Your task to perform on an android device: Search for seafood restaurants on Google Maps Image 0: 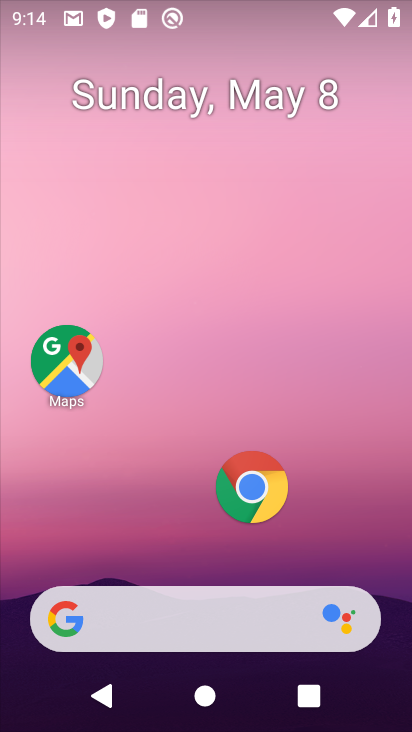
Step 0: click (54, 370)
Your task to perform on an android device: Search for seafood restaurants on Google Maps Image 1: 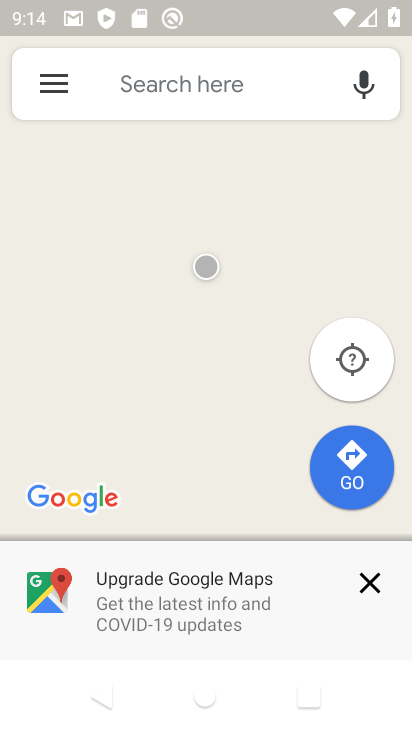
Step 1: click (196, 86)
Your task to perform on an android device: Search for seafood restaurants on Google Maps Image 2: 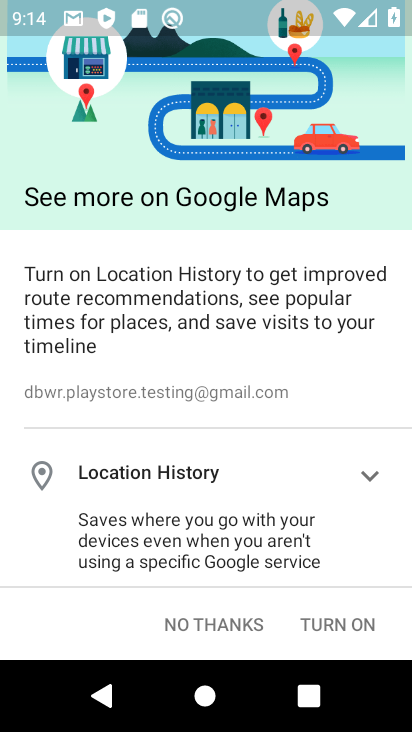
Step 2: click (255, 617)
Your task to perform on an android device: Search for seafood restaurants on Google Maps Image 3: 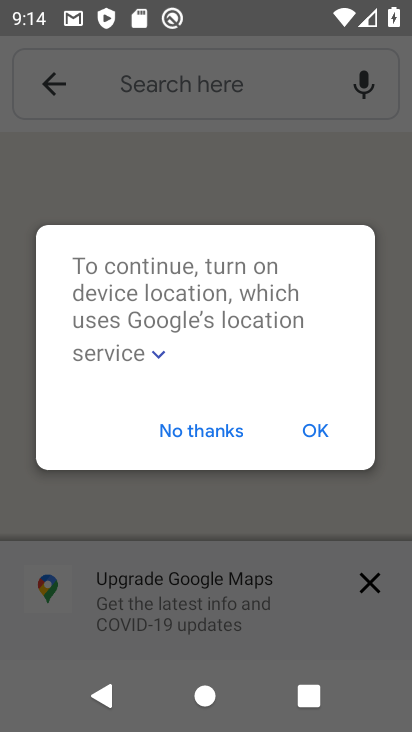
Step 3: click (325, 433)
Your task to perform on an android device: Search for seafood restaurants on Google Maps Image 4: 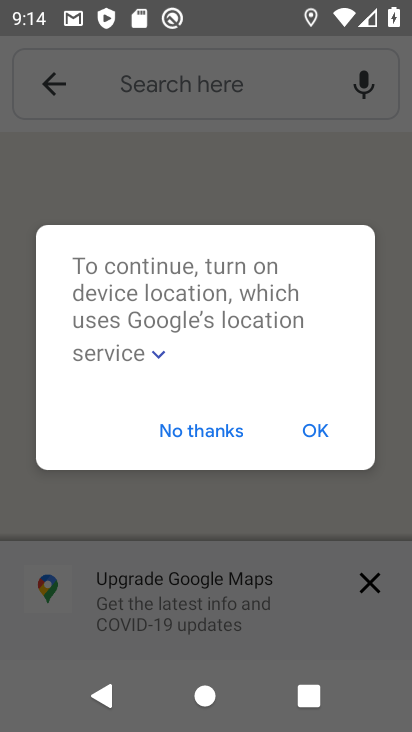
Step 4: click (315, 420)
Your task to perform on an android device: Search for seafood restaurants on Google Maps Image 5: 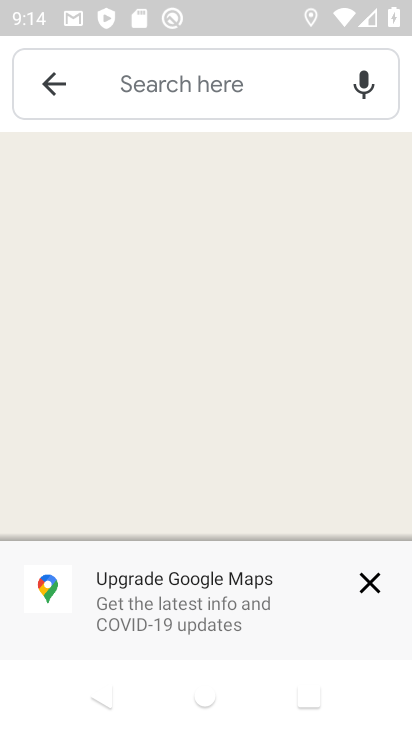
Step 5: click (53, 80)
Your task to perform on an android device: Search for seafood restaurants on Google Maps Image 6: 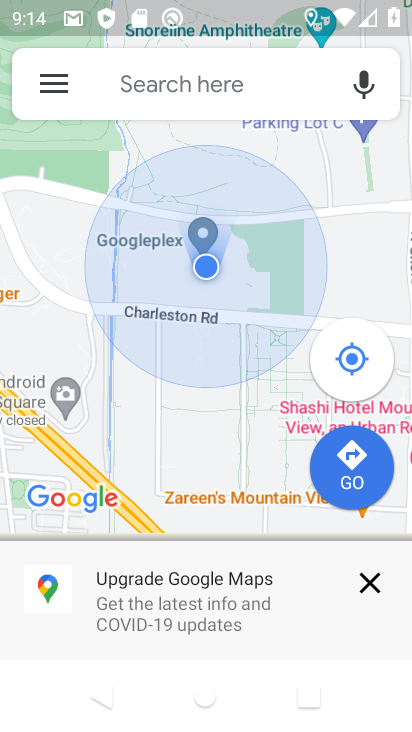
Step 6: click (124, 74)
Your task to perform on an android device: Search for seafood restaurants on Google Maps Image 7: 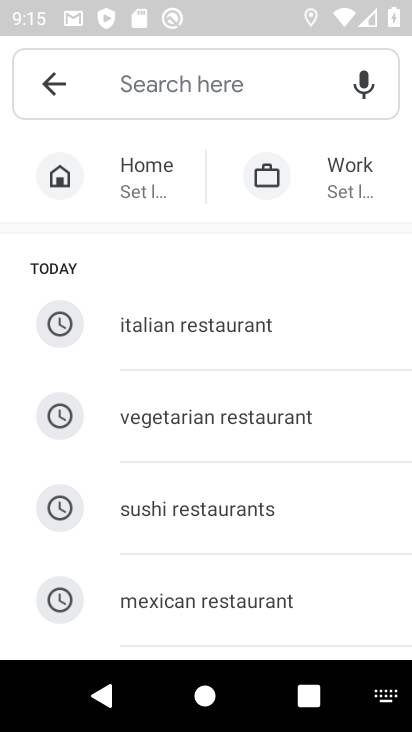
Step 7: drag from (266, 593) to (264, 424)
Your task to perform on an android device: Search for seafood restaurants on Google Maps Image 8: 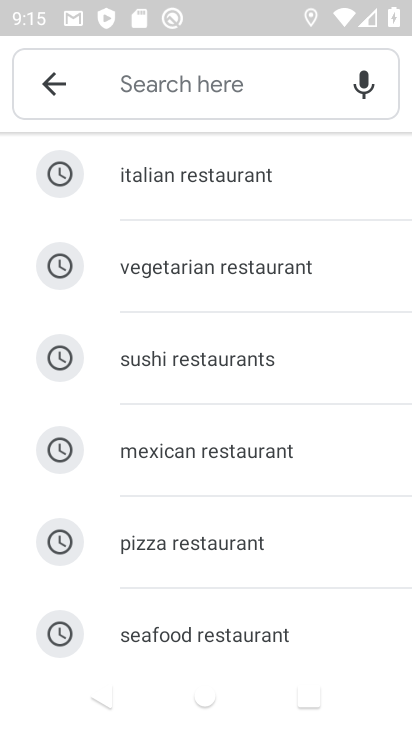
Step 8: click (239, 628)
Your task to perform on an android device: Search for seafood restaurants on Google Maps Image 9: 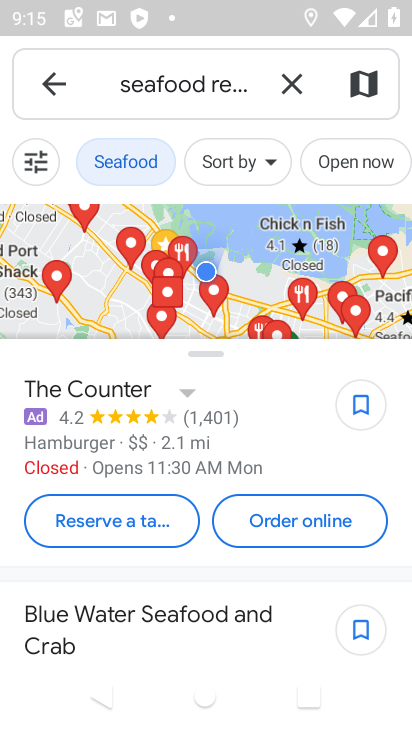
Step 9: task complete